Your task to perform on an android device: Empty the shopping cart on target. Search for logitech g pro on target, select the first entry, and add it to the cart. Image 0: 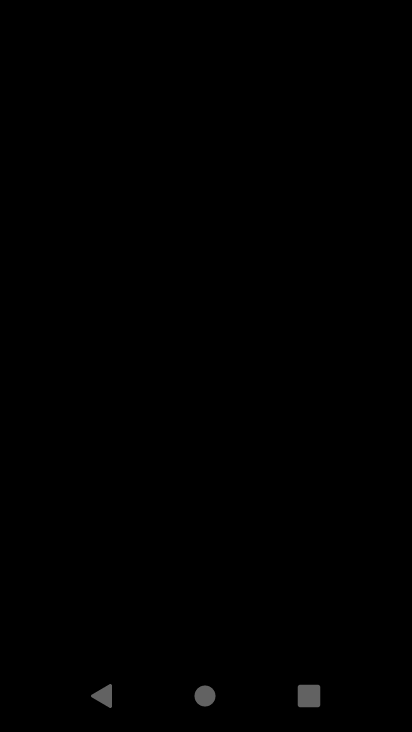
Step 0: click (245, 495)
Your task to perform on an android device: Empty the shopping cart on target. Search for logitech g pro on target, select the first entry, and add it to the cart. Image 1: 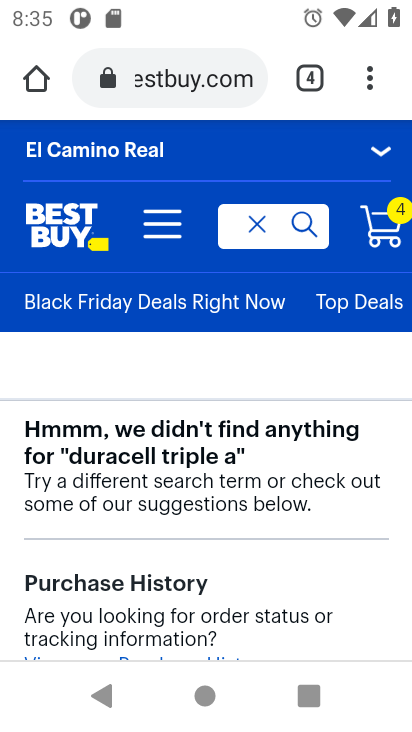
Step 1: click (165, 76)
Your task to perform on an android device: Empty the shopping cart on target. Search for logitech g pro on target, select the first entry, and add it to the cart. Image 2: 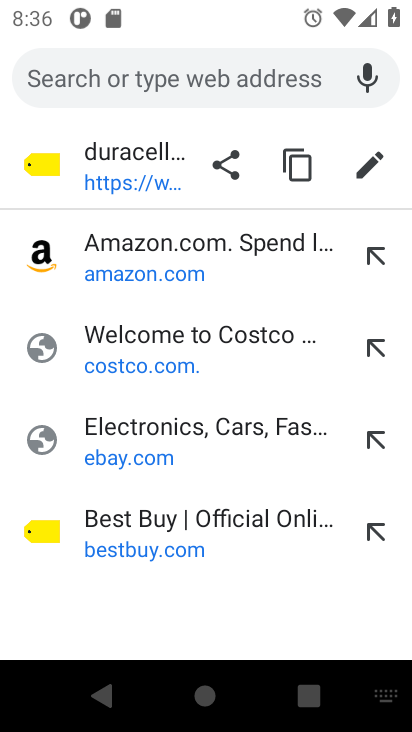
Step 2: type "target"
Your task to perform on an android device: Empty the shopping cart on target. Search for logitech g pro on target, select the first entry, and add it to the cart. Image 3: 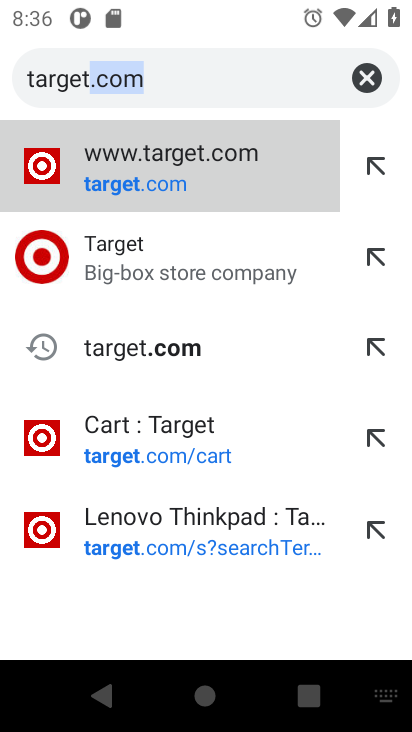
Step 3: click (258, 152)
Your task to perform on an android device: Empty the shopping cart on target. Search for logitech g pro on target, select the first entry, and add it to the cart. Image 4: 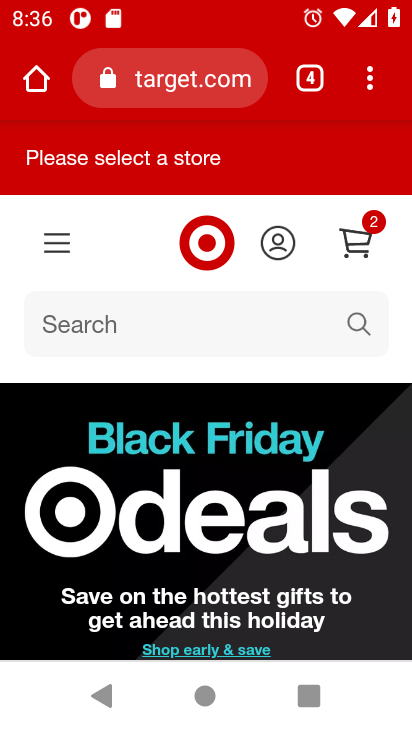
Step 4: click (376, 239)
Your task to perform on an android device: Empty the shopping cart on target. Search for logitech g pro on target, select the first entry, and add it to the cart. Image 5: 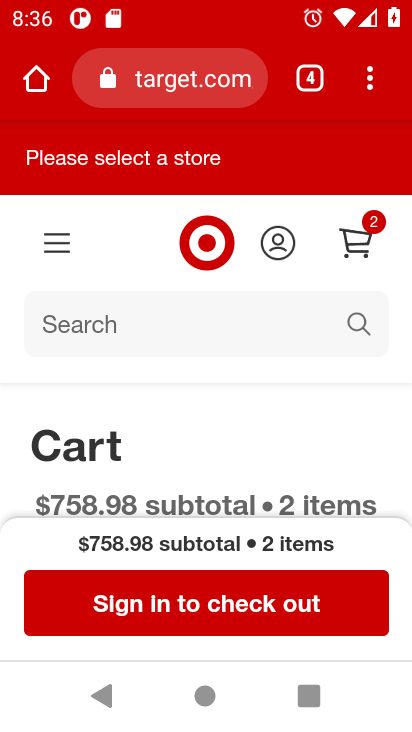
Step 5: drag from (189, 431) to (270, 12)
Your task to perform on an android device: Empty the shopping cart on target. Search for logitech g pro on target, select the first entry, and add it to the cart. Image 6: 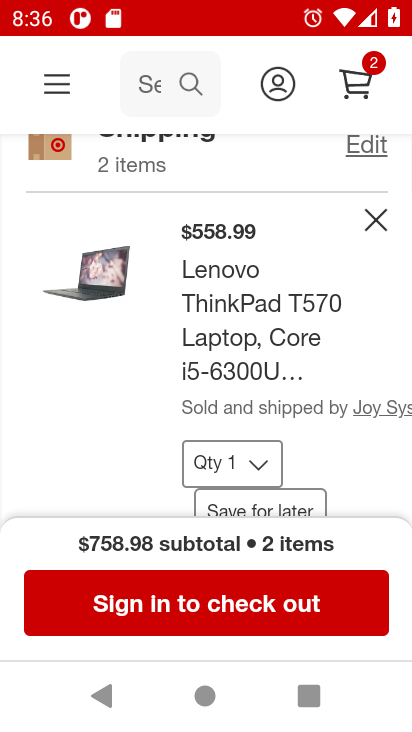
Step 6: click (374, 215)
Your task to perform on an android device: Empty the shopping cart on target. Search for logitech g pro on target, select the first entry, and add it to the cart. Image 7: 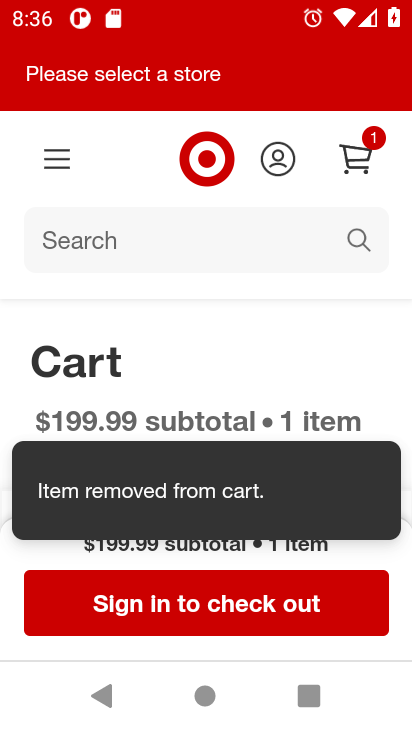
Step 7: drag from (191, 390) to (228, 56)
Your task to perform on an android device: Empty the shopping cart on target. Search for logitech g pro on target, select the first entry, and add it to the cart. Image 8: 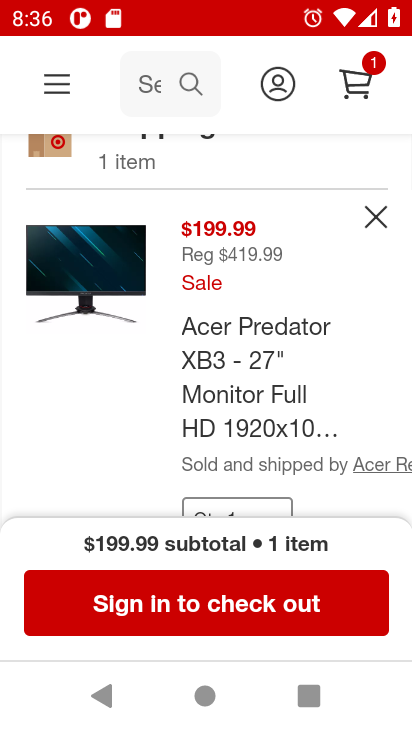
Step 8: click (375, 225)
Your task to perform on an android device: Empty the shopping cart on target. Search for logitech g pro on target, select the first entry, and add it to the cart. Image 9: 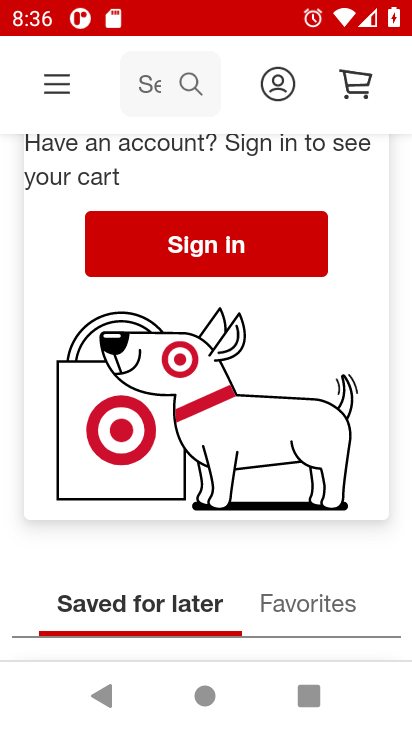
Step 9: click (146, 80)
Your task to perform on an android device: Empty the shopping cart on target. Search for logitech g pro on target, select the first entry, and add it to the cart. Image 10: 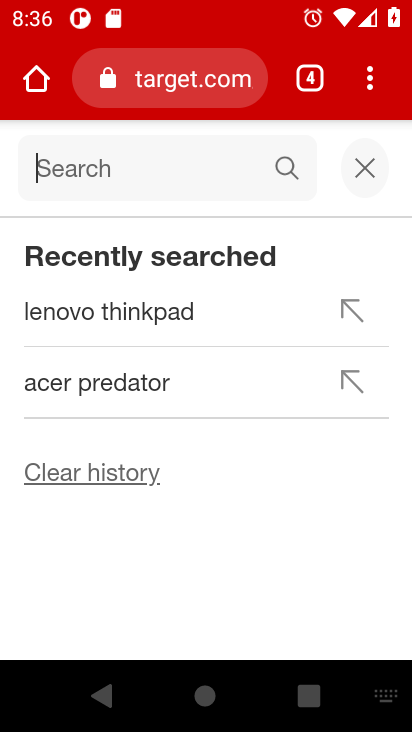
Step 10: type " logitech g pro"
Your task to perform on an android device: Empty the shopping cart on target. Search for logitech g pro on target, select the first entry, and add it to the cart. Image 11: 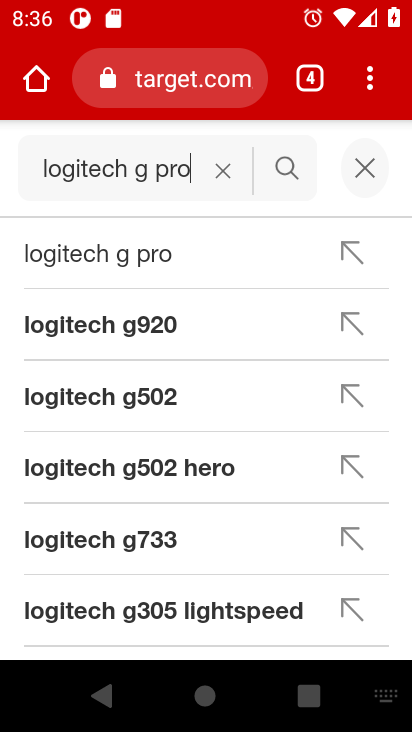
Step 11: click (290, 158)
Your task to perform on an android device: Empty the shopping cart on target. Search for logitech g pro on target, select the first entry, and add it to the cart. Image 12: 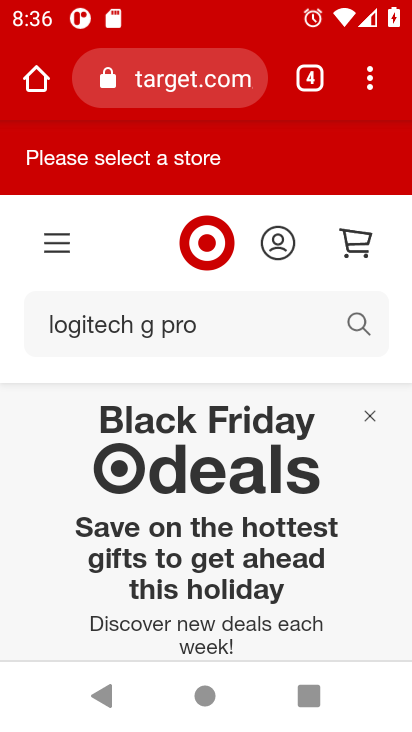
Step 12: click (373, 411)
Your task to perform on an android device: Empty the shopping cart on target. Search for logitech g pro on target, select the first entry, and add it to the cart. Image 13: 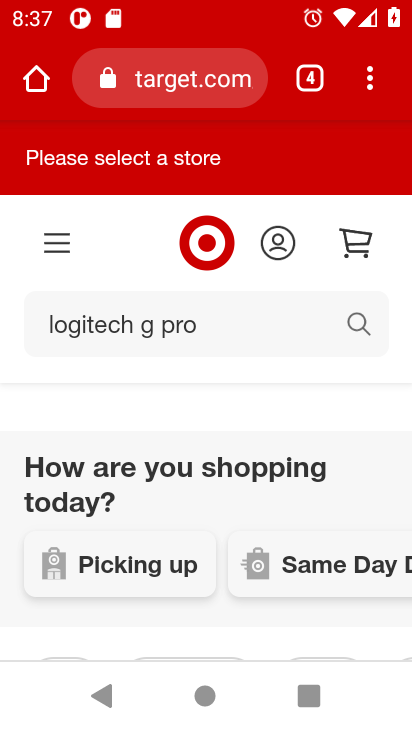
Step 13: drag from (173, 500) to (251, 29)
Your task to perform on an android device: Empty the shopping cart on target. Search for logitech g pro on target, select the first entry, and add it to the cart. Image 14: 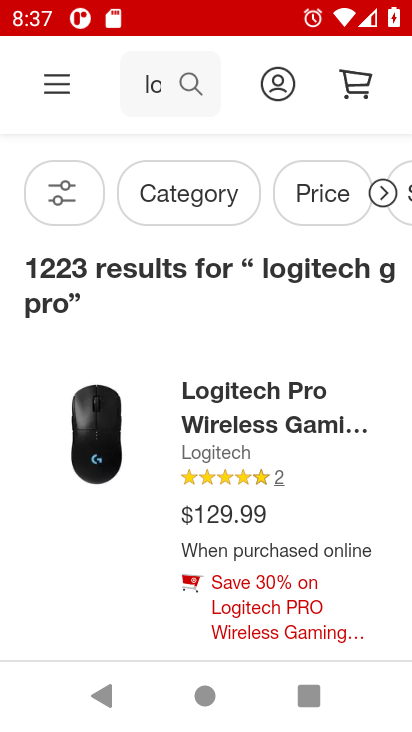
Step 14: drag from (293, 506) to (290, 108)
Your task to perform on an android device: Empty the shopping cart on target. Search for logitech g pro on target, select the first entry, and add it to the cart. Image 15: 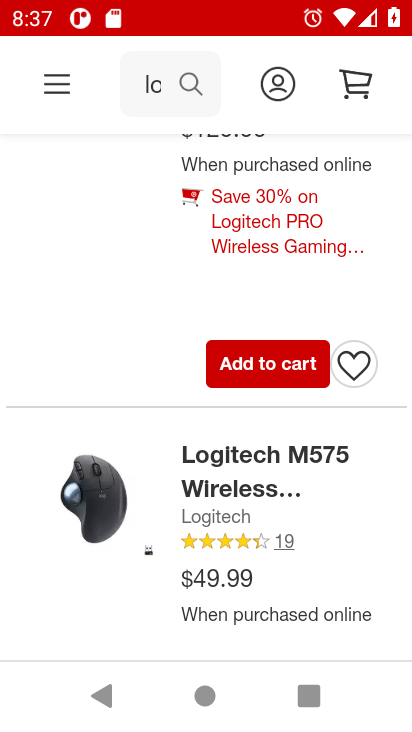
Step 15: click (259, 349)
Your task to perform on an android device: Empty the shopping cart on target. Search for logitech g pro on target, select the first entry, and add it to the cart. Image 16: 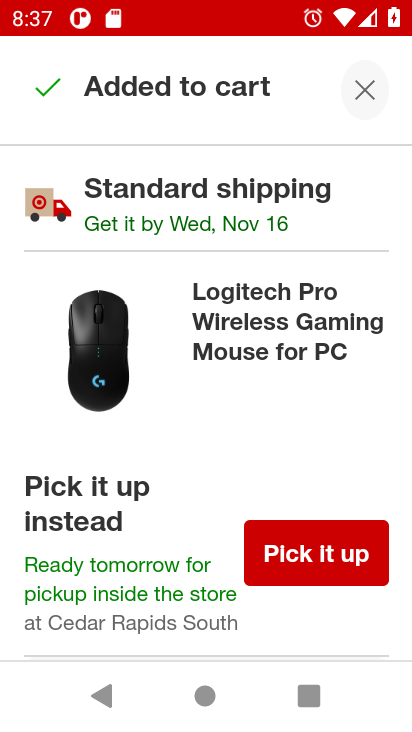
Step 16: task complete